Your task to perform on an android device: Find coffee shops on Maps Image 0: 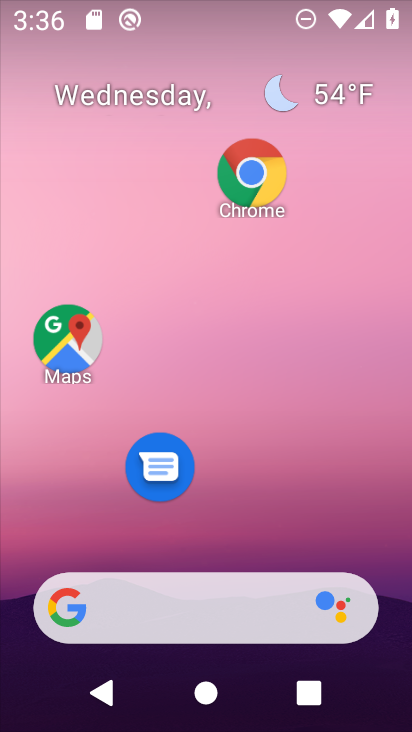
Step 0: click (60, 347)
Your task to perform on an android device: Find coffee shops on Maps Image 1: 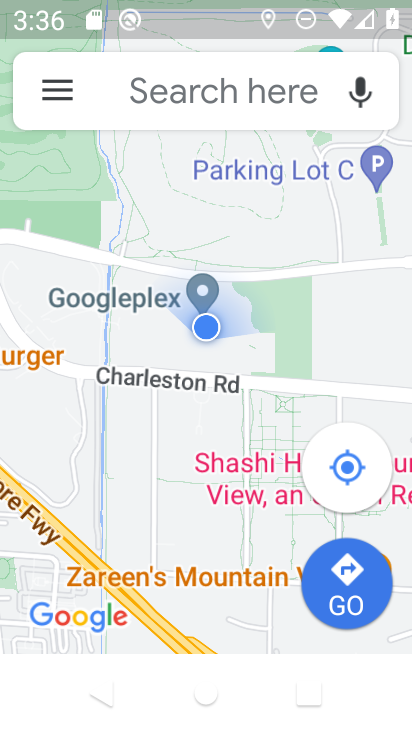
Step 1: click (214, 82)
Your task to perform on an android device: Find coffee shops on Maps Image 2: 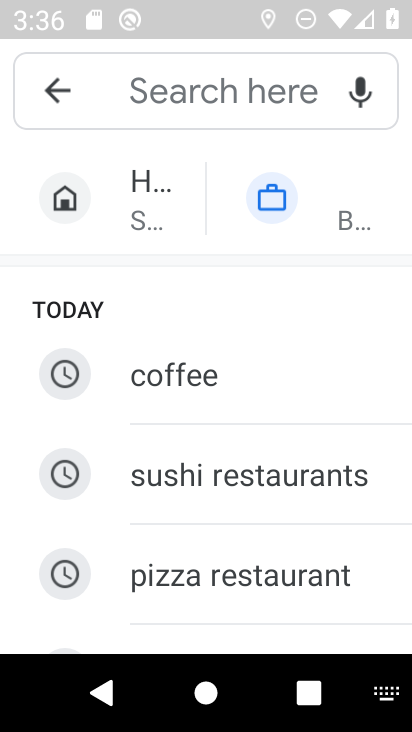
Step 2: type "coffee shops"
Your task to perform on an android device: Find coffee shops on Maps Image 3: 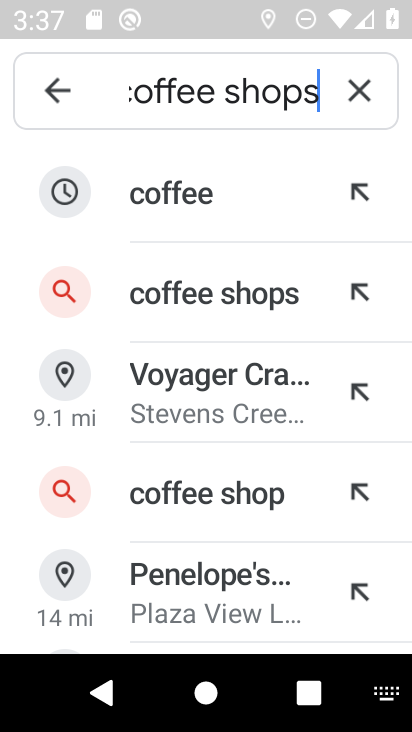
Step 3: click (211, 293)
Your task to perform on an android device: Find coffee shops on Maps Image 4: 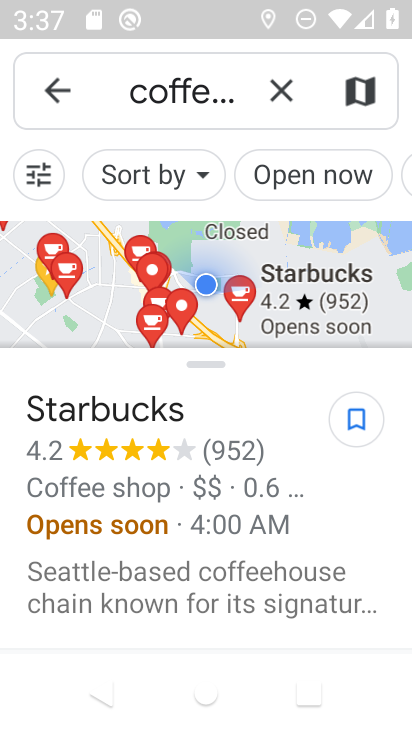
Step 4: task complete